Your task to perform on an android device: open chrome and create a bookmark for the current page Image 0: 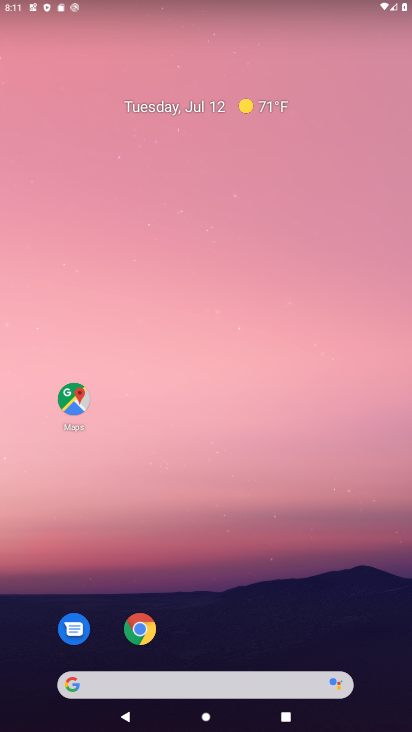
Step 0: drag from (375, 633) to (339, 267)
Your task to perform on an android device: open chrome and create a bookmark for the current page Image 1: 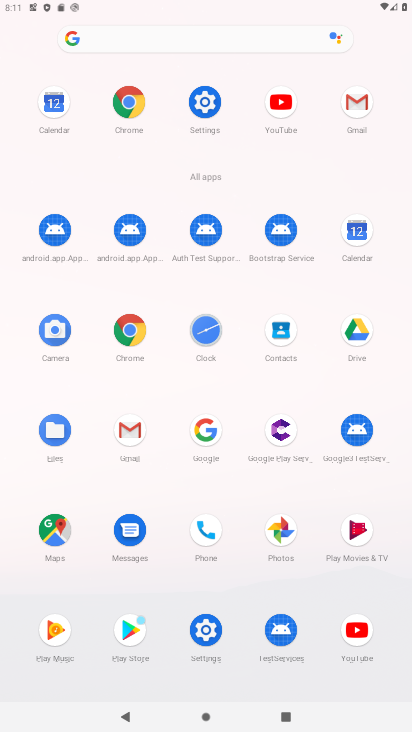
Step 1: click (125, 329)
Your task to perform on an android device: open chrome and create a bookmark for the current page Image 2: 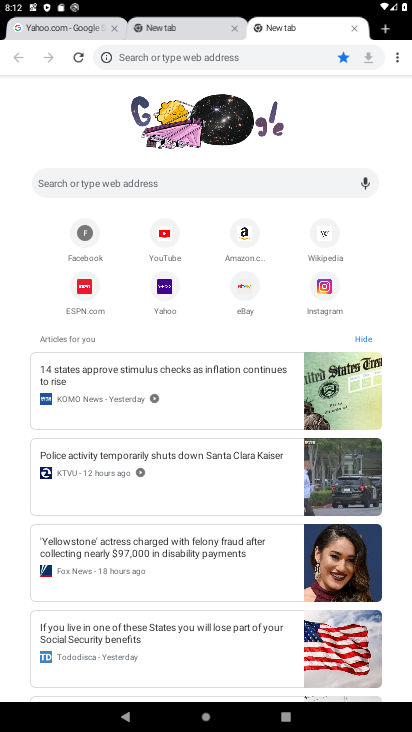
Step 2: click (395, 55)
Your task to perform on an android device: open chrome and create a bookmark for the current page Image 3: 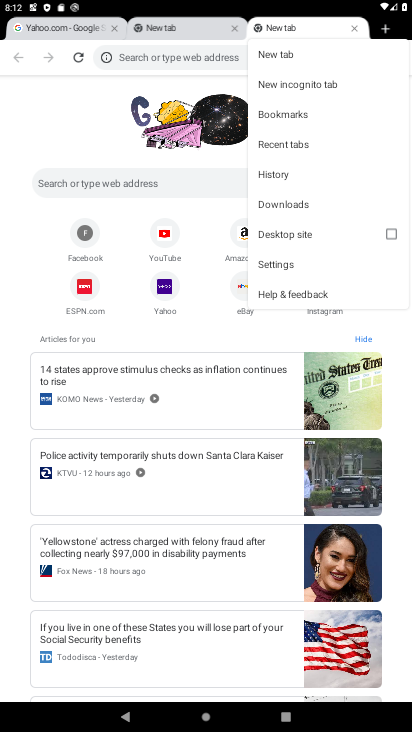
Step 3: click (112, 128)
Your task to perform on an android device: open chrome and create a bookmark for the current page Image 4: 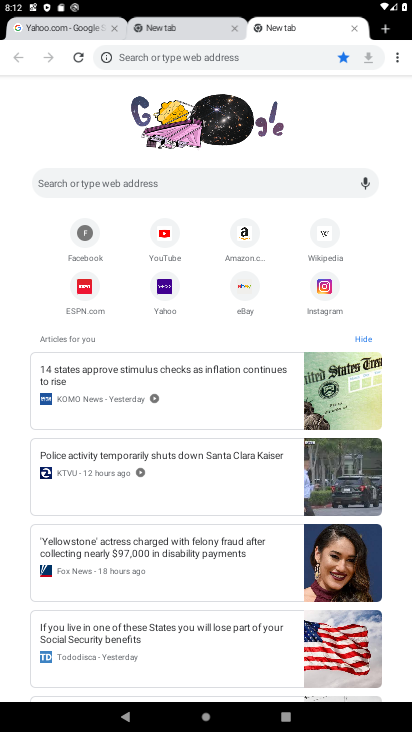
Step 4: task complete